Your task to perform on an android device: Add energizer triple a to the cart on newegg Image 0: 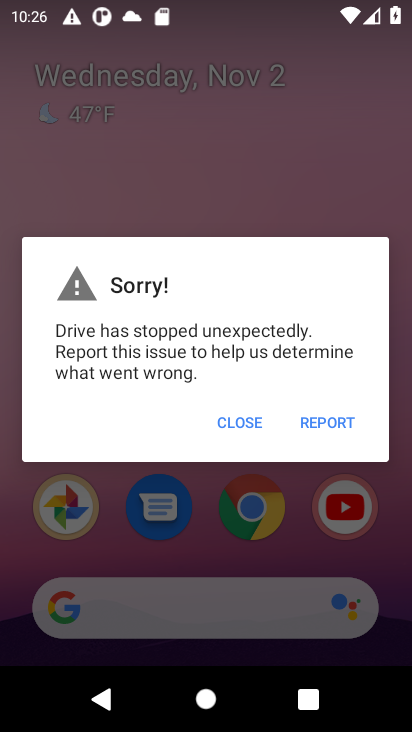
Step 0: click (248, 429)
Your task to perform on an android device: Add energizer triple a to the cart on newegg Image 1: 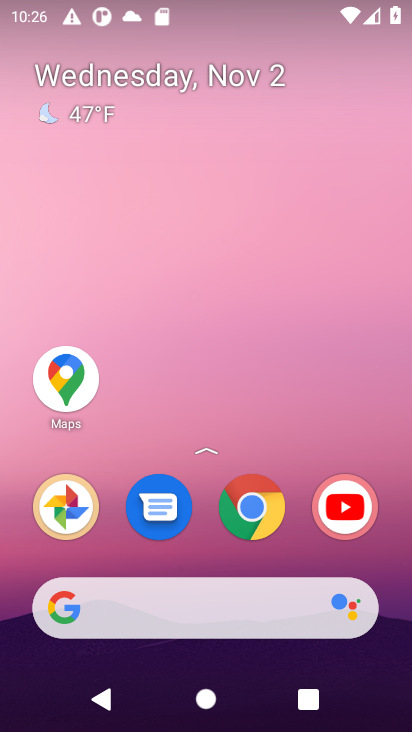
Step 1: task complete